Your task to perform on an android device: set an alarm Image 0: 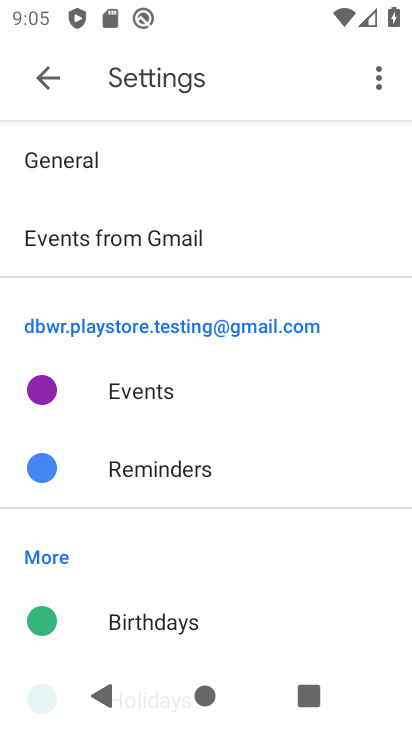
Step 0: press home button
Your task to perform on an android device: set an alarm Image 1: 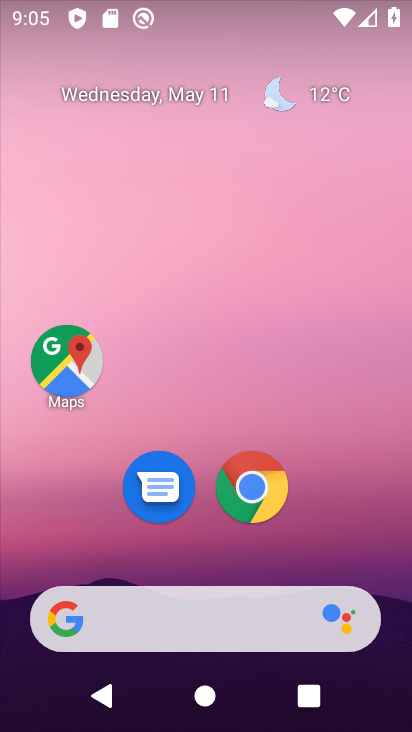
Step 1: drag from (57, 570) to (211, 73)
Your task to perform on an android device: set an alarm Image 2: 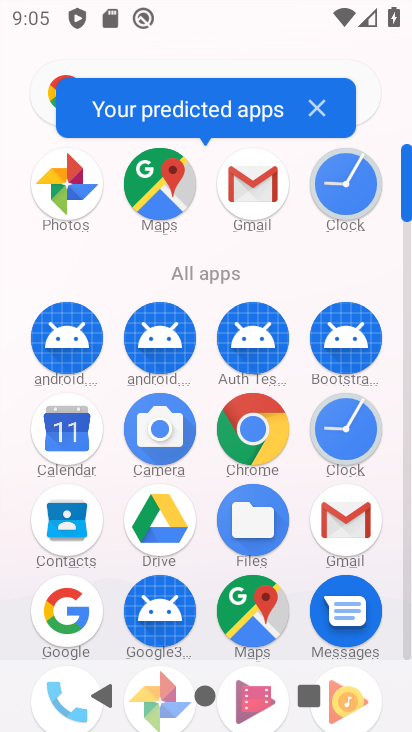
Step 2: click (337, 450)
Your task to perform on an android device: set an alarm Image 3: 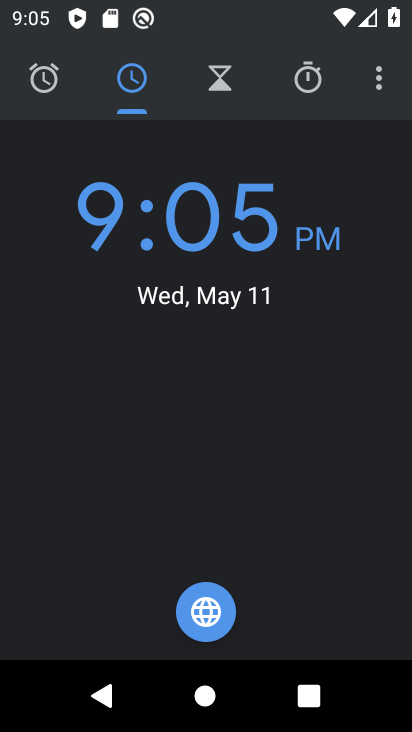
Step 3: click (59, 86)
Your task to perform on an android device: set an alarm Image 4: 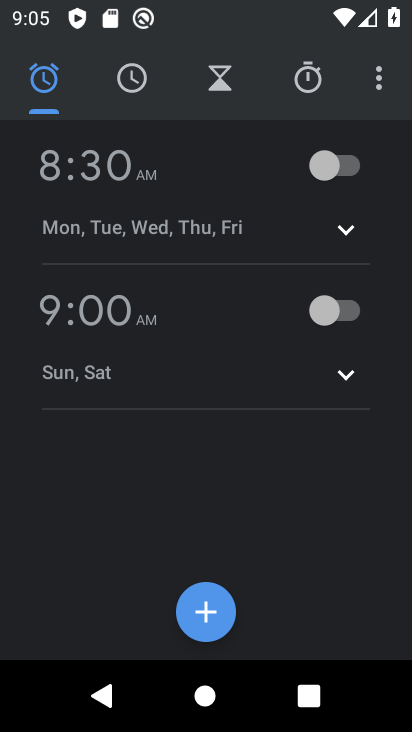
Step 4: click (370, 162)
Your task to perform on an android device: set an alarm Image 5: 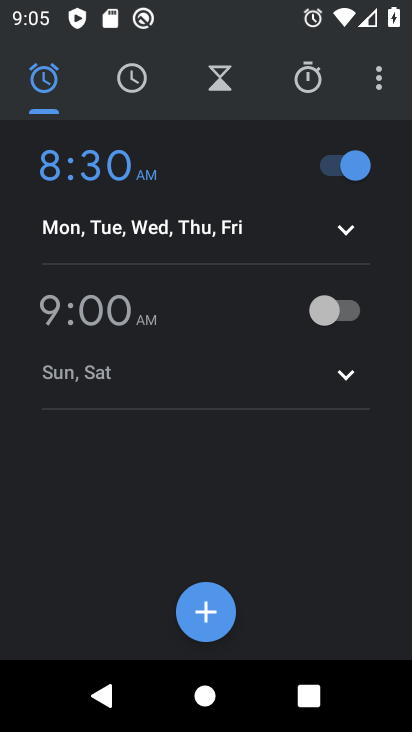
Step 5: task complete